Your task to perform on an android device: Go to Android settings Image 0: 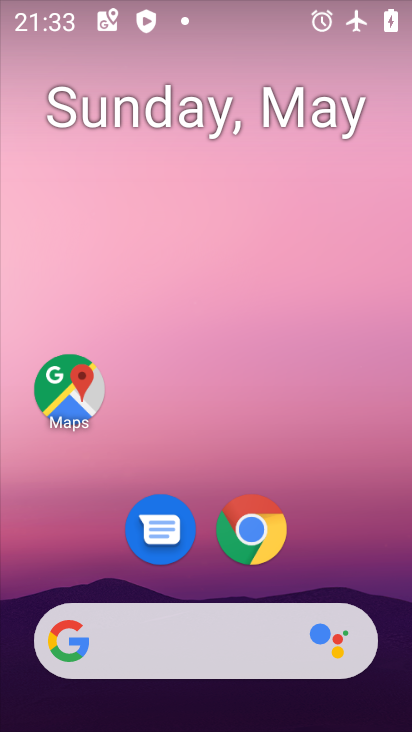
Step 0: drag from (344, 587) to (315, 1)
Your task to perform on an android device: Go to Android settings Image 1: 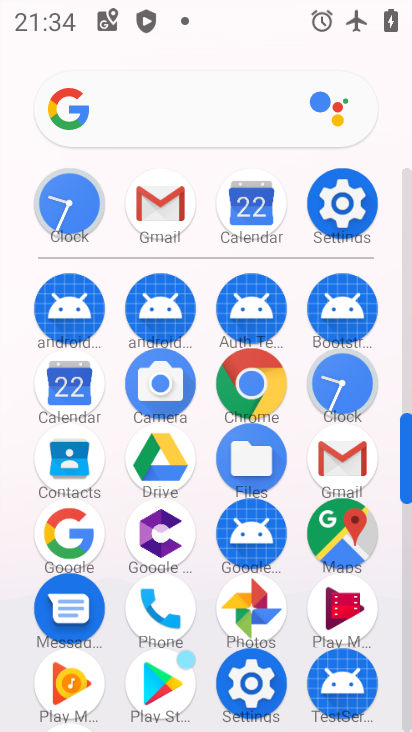
Step 1: click (352, 205)
Your task to perform on an android device: Go to Android settings Image 2: 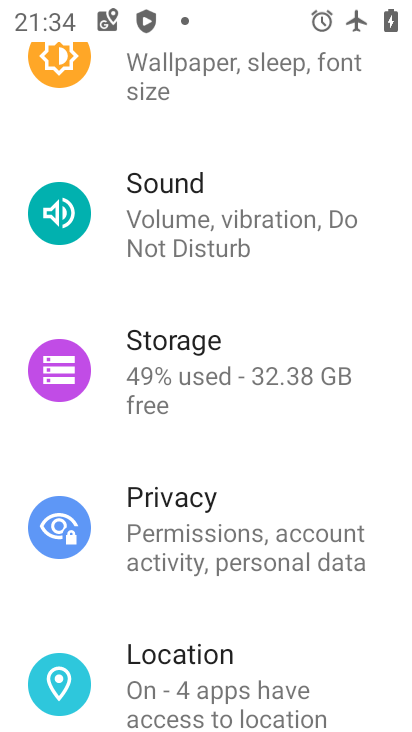
Step 2: task complete